Your task to perform on an android device: see tabs open on other devices in the chrome app Image 0: 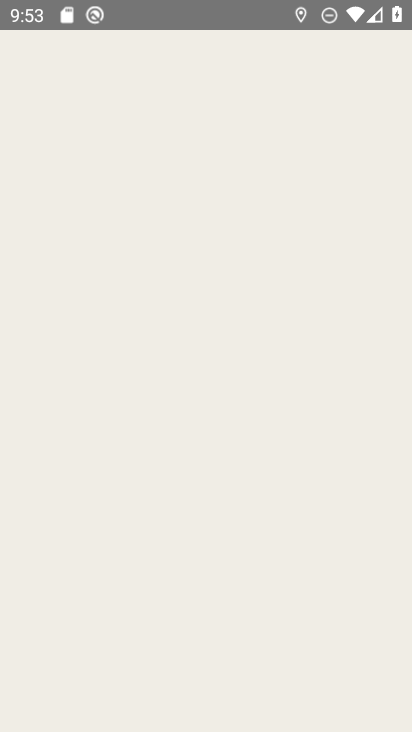
Step 0: press home button
Your task to perform on an android device: see tabs open on other devices in the chrome app Image 1: 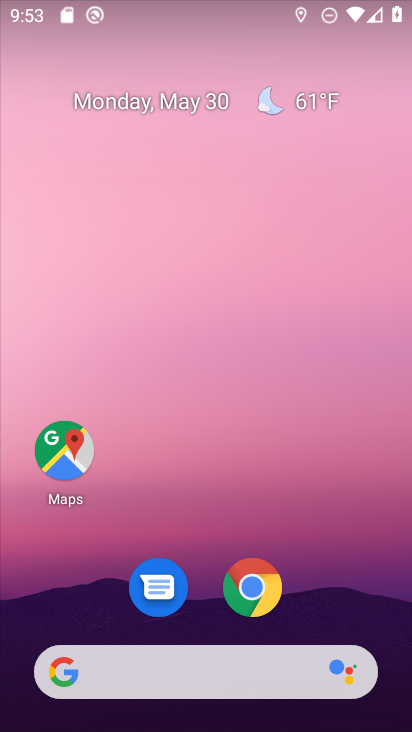
Step 1: click (239, 603)
Your task to perform on an android device: see tabs open on other devices in the chrome app Image 2: 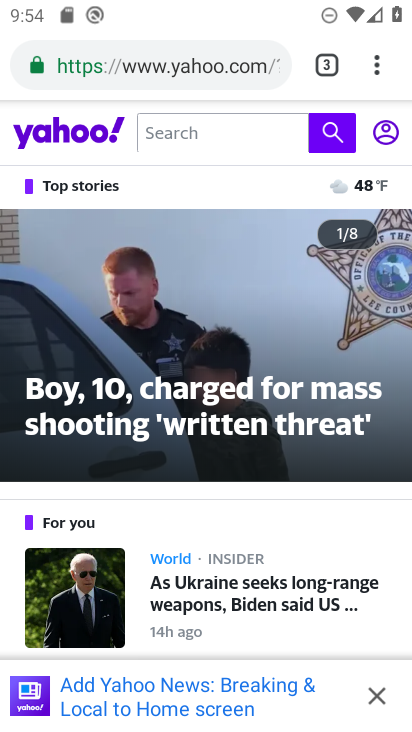
Step 2: click (329, 70)
Your task to perform on an android device: see tabs open on other devices in the chrome app Image 3: 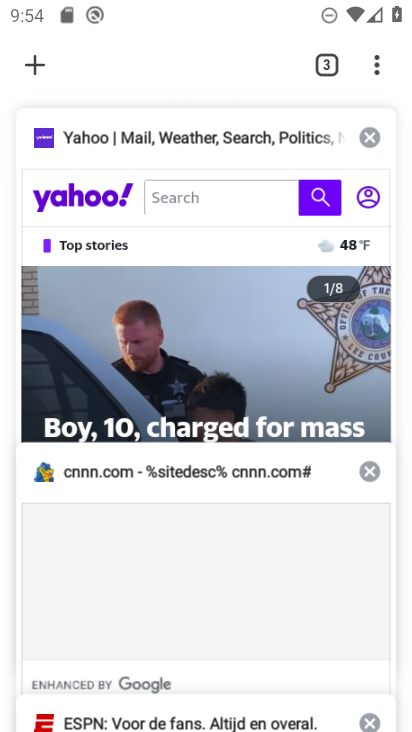
Step 3: task complete